Your task to perform on an android device: make emails show in primary in the gmail app Image 0: 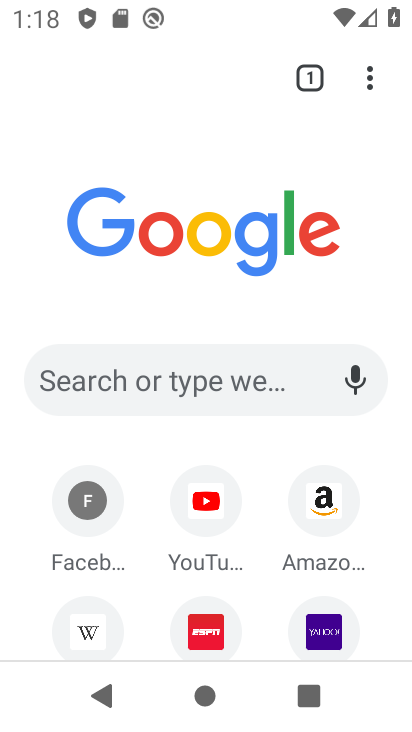
Step 0: press home button
Your task to perform on an android device: make emails show in primary in the gmail app Image 1: 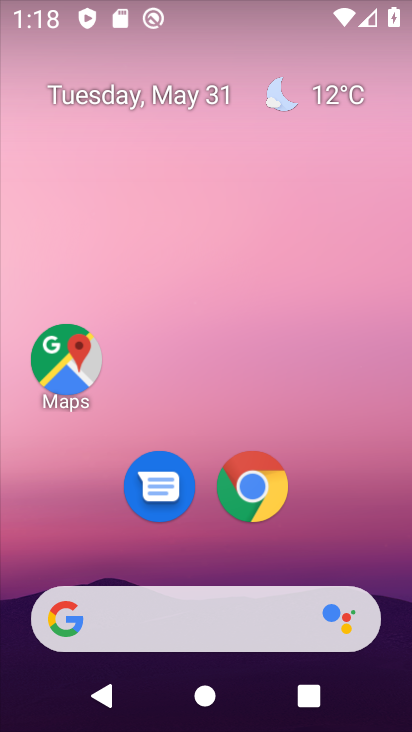
Step 1: drag from (201, 566) to (203, 115)
Your task to perform on an android device: make emails show in primary in the gmail app Image 2: 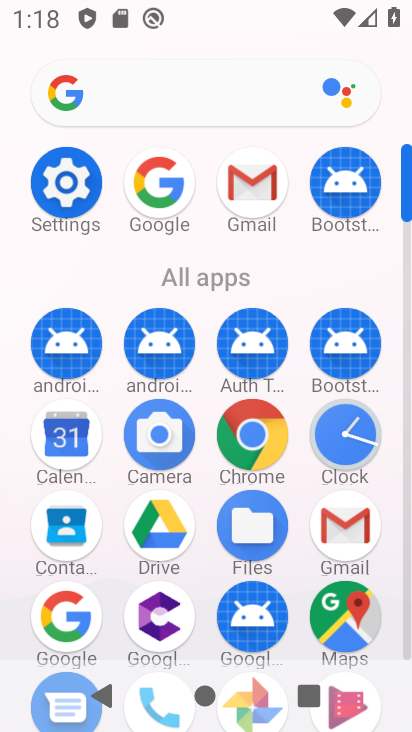
Step 2: click (259, 190)
Your task to perform on an android device: make emails show in primary in the gmail app Image 3: 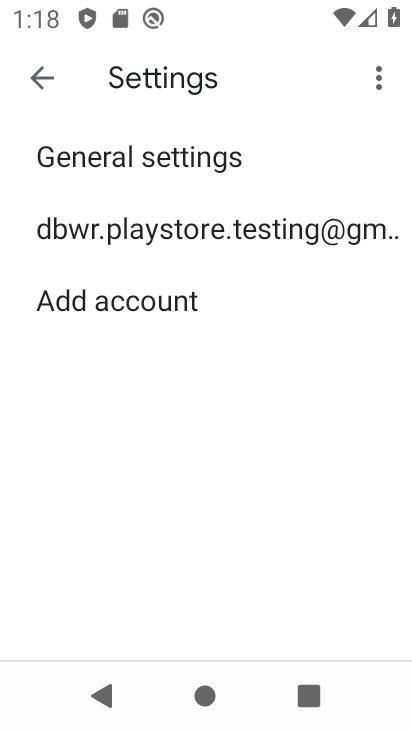
Step 3: click (248, 236)
Your task to perform on an android device: make emails show in primary in the gmail app Image 4: 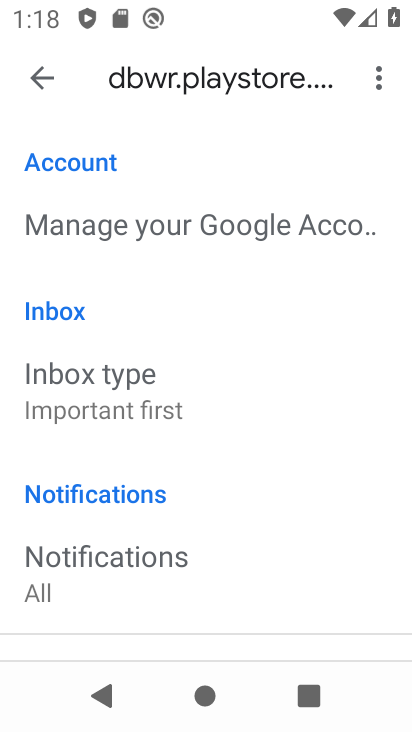
Step 4: task complete